Your task to perform on an android device: What's on my calendar today? Image 0: 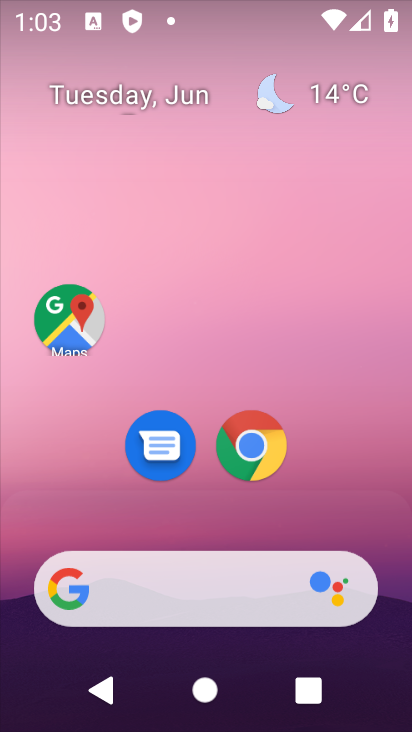
Step 0: click (113, 95)
Your task to perform on an android device: What's on my calendar today? Image 1: 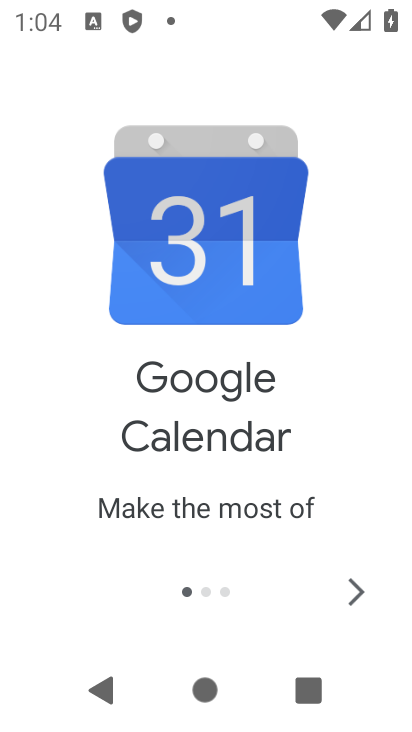
Step 1: click (336, 590)
Your task to perform on an android device: What's on my calendar today? Image 2: 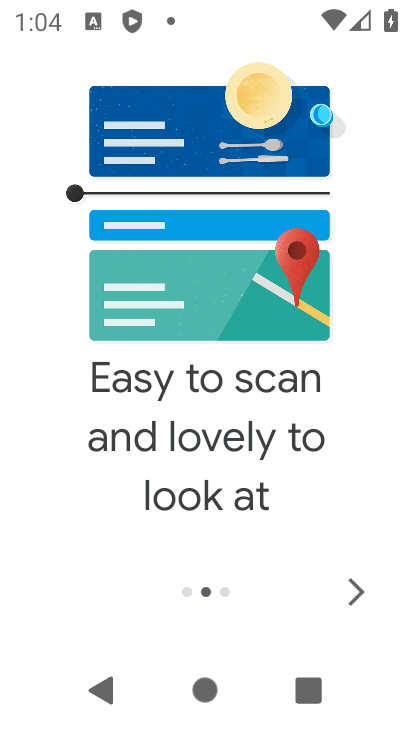
Step 2: click (336, 590)
Your task to perform on an android device: What's on my calendar today? Image 3: 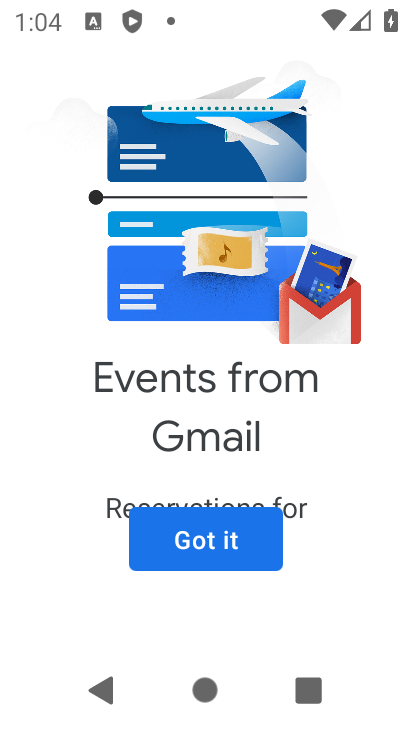
Step 3: click (212, 520)
Your task to perform on an android device: What's on my calendar today? Image 4: 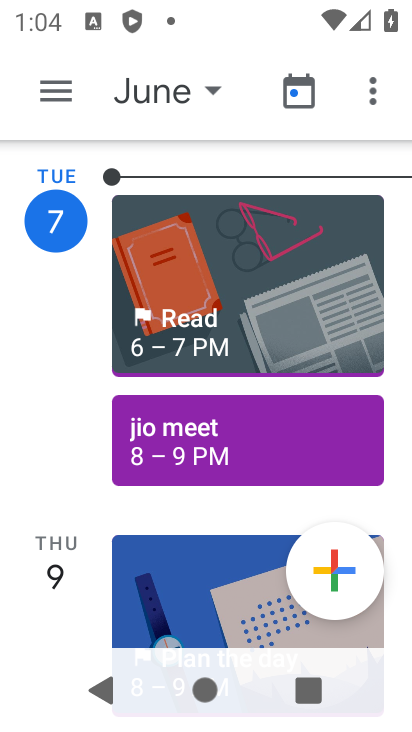
Step 4: click (198, 85)
Your task to perform on an android device: What's on my calendar today? Image 5: 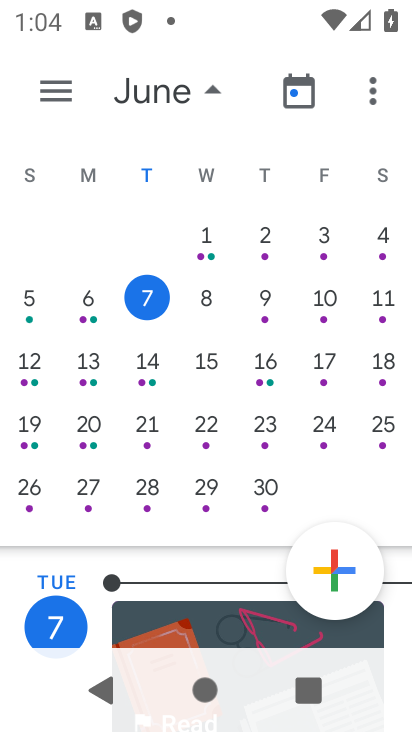
Step 5: click (202, 302)
Your task to perform on an android device: What's on my calendar today? Image 6: 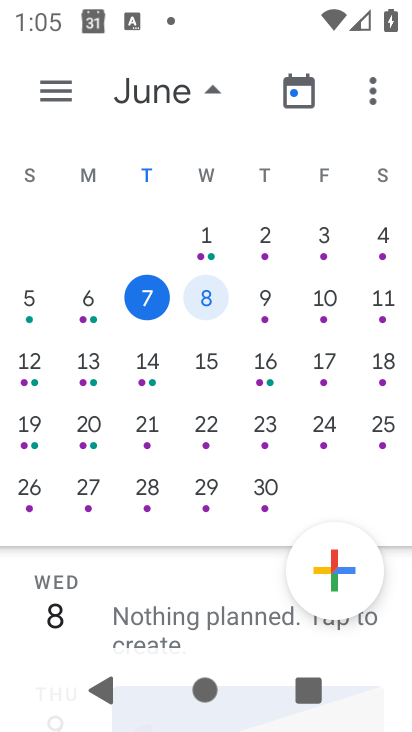
Step 6: task complete